Your task to perform on an android device: Go to battery settings Image 0: 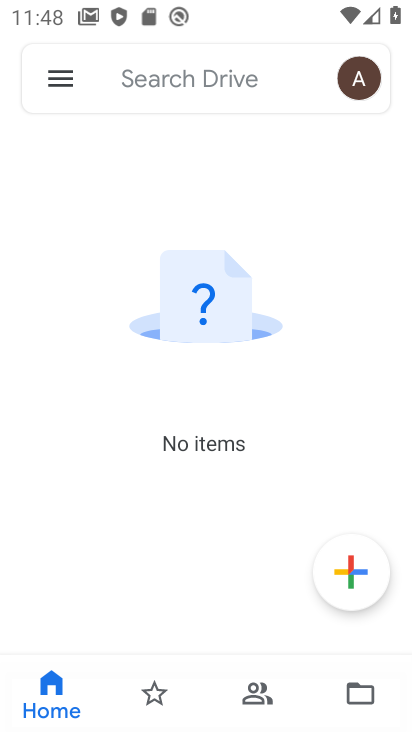
Step 0: drag from (234, 441) to (237, 299)
Your task to perform on an android device: Go to battery settings Image 1: 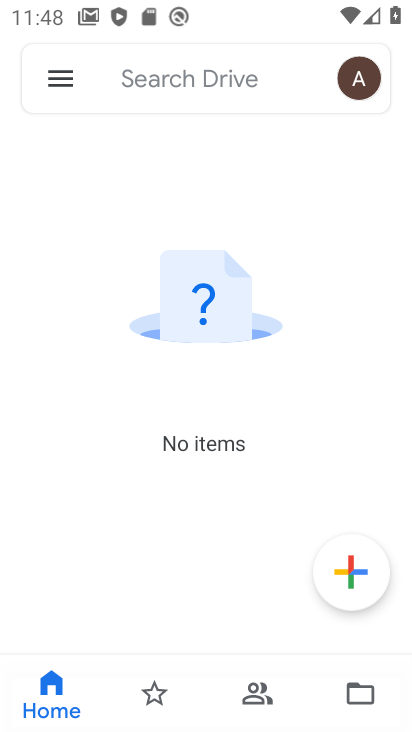
Step 1: drag from (232, 454) to (235, 282)
Your task to perform on an android device: Go to battery settings Image 2: 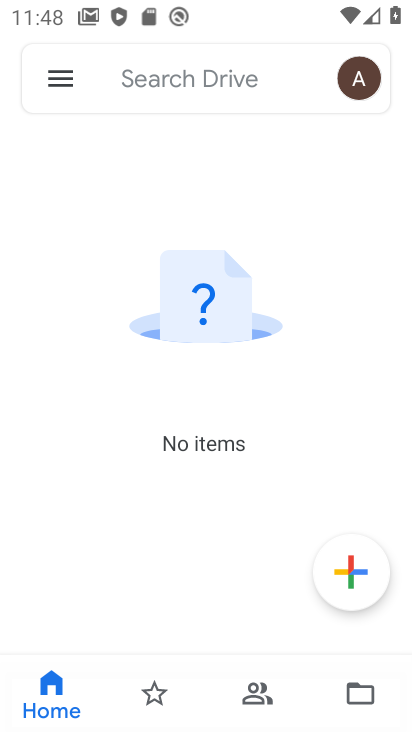
Step 2: press home button
Your task to perform on an android device: Go to battery settings Image 3: 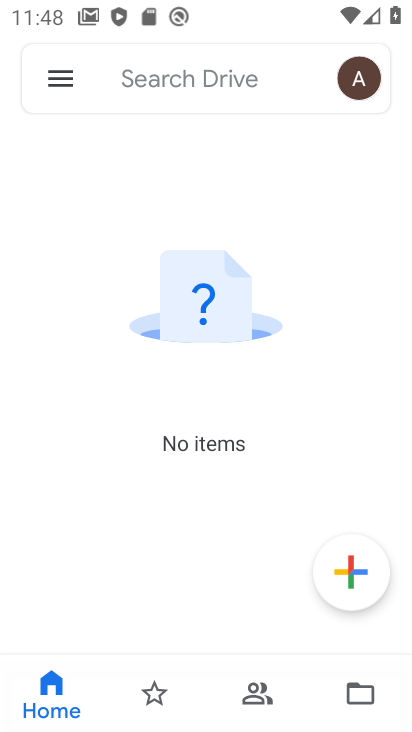
Step 3: press home button
Your task to perform on an android device: Go to battery settings Image 4: 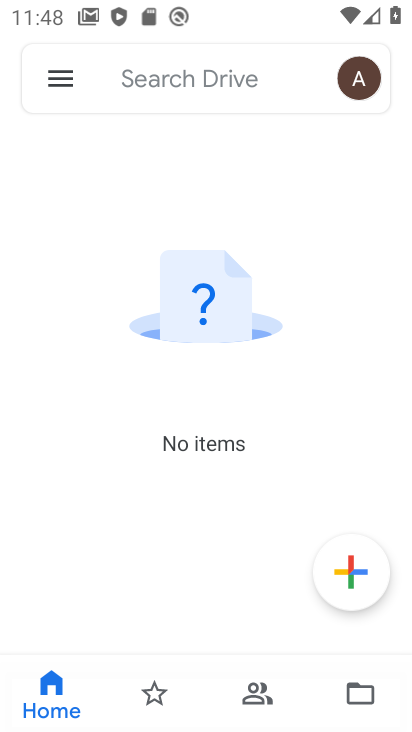
Step 4: click (235, 104)
Your task to perform on an android device: Go to battery settings Image 5: 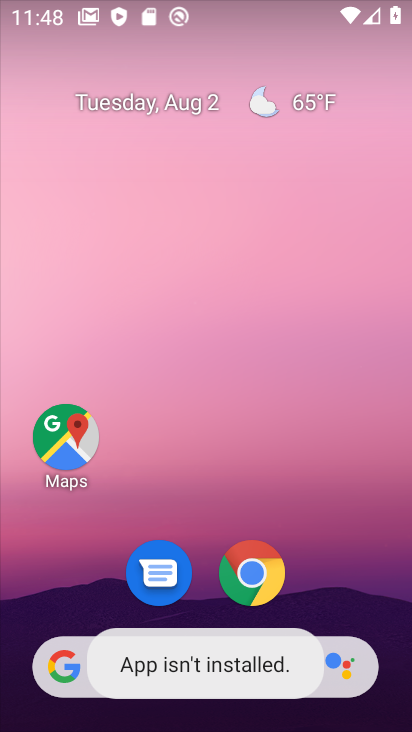
Step 5: drag from (206, 584) to (232, 152)
Your task to perform on an android device: Go to battery settings Image 6: 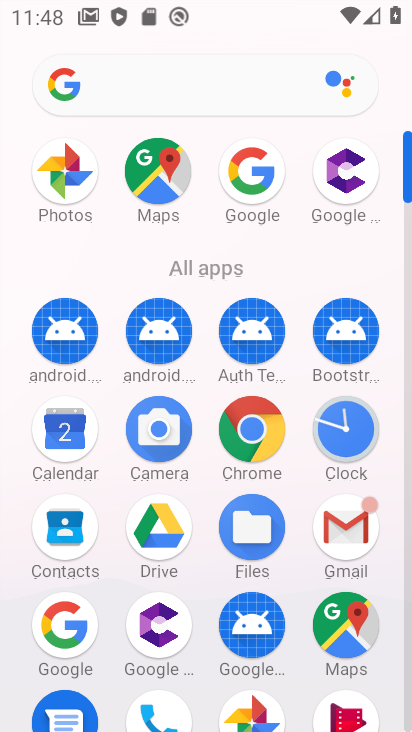
Step 6: drag from (191, 625) to (204, 188)
Your task to perform on an android device: Go to battery settings Image 7: 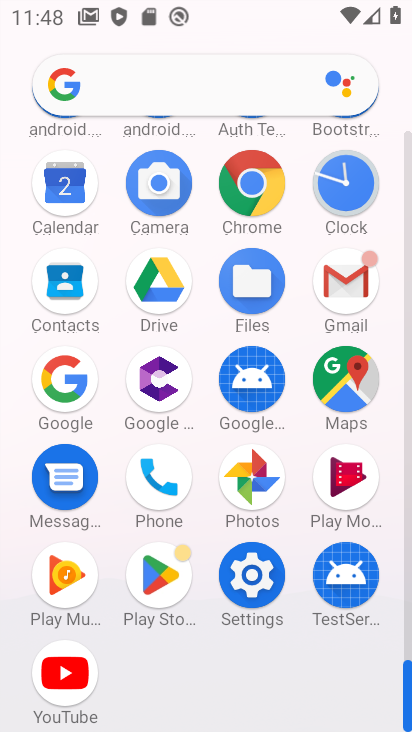
Step 7: click (245, 556)
Your task to perform on an android device: Go to battery settings Image 8: 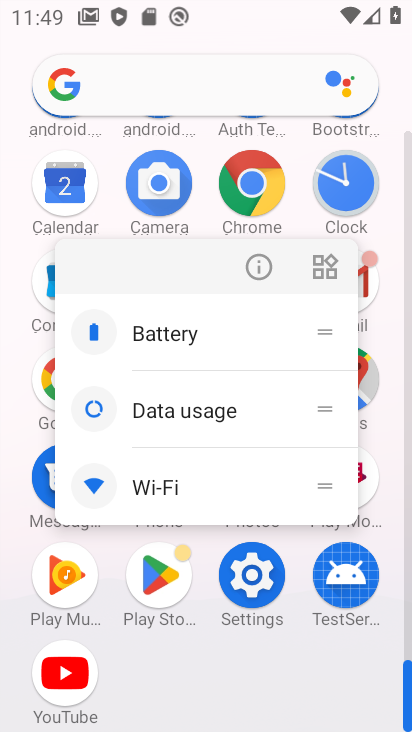
Step 8: click (259, 263)
Your task to perform on an android device: Go to battery settings Image 9: 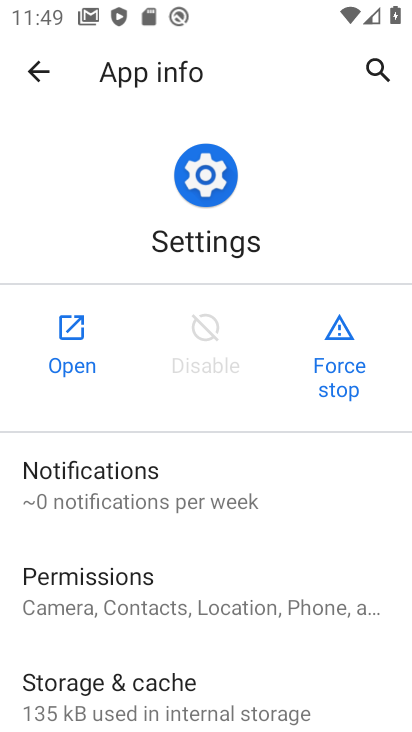
Step 9: click (67, 345)
Your task to perform on an android device: Go to battery settings Image 10: 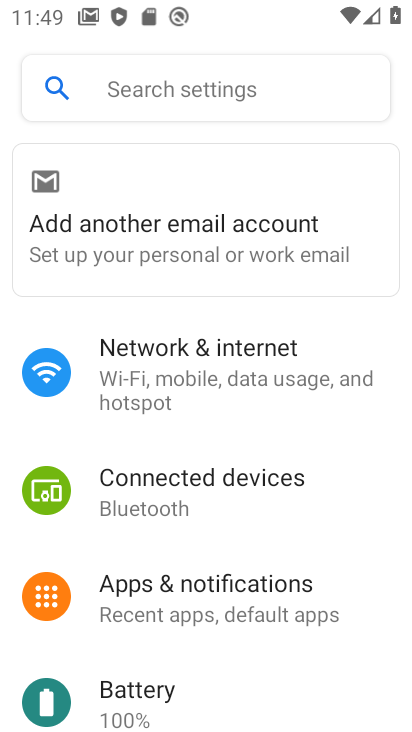
Step 10: drag from (168, 599) to (155, 362)
Your task to perform on an android device: Go to battery settings Image 11: 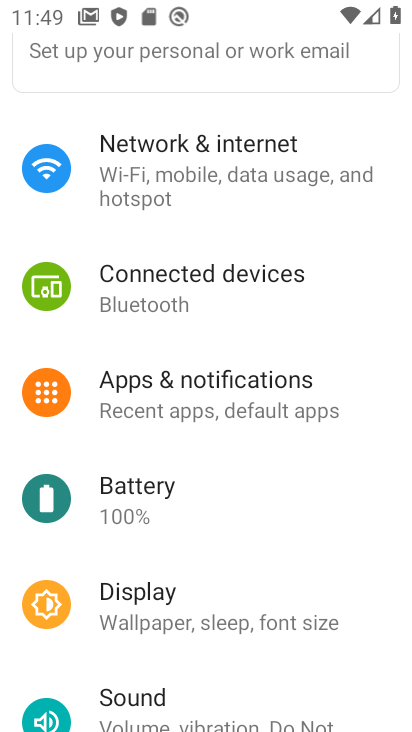
Step 11: click (201, 493)
Your task to perform on an android device: Go to battery settings Image 12: 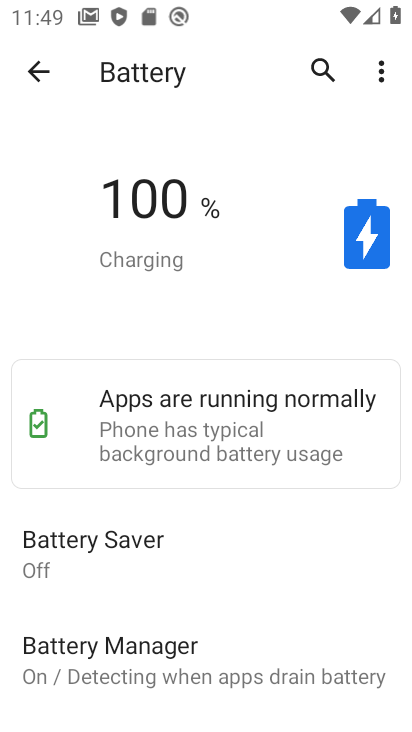
Step 12: task complete